Your task to perform on an android device: Go to battery settings Image 0: 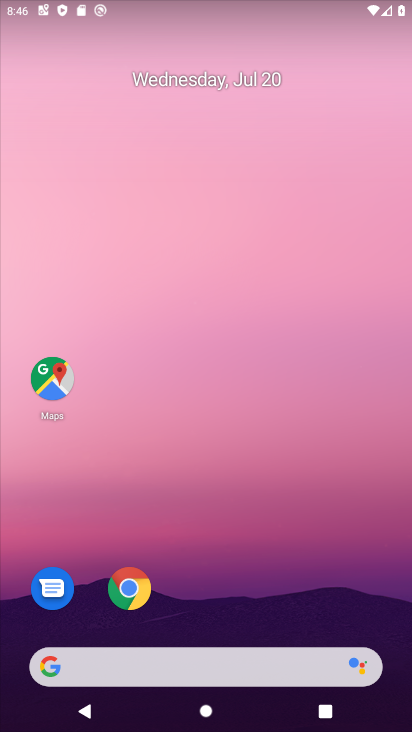
Step 0: drag from (202, 11) to (250, 486)
Your task to perform on an android device: Go to battery settings Image 1: 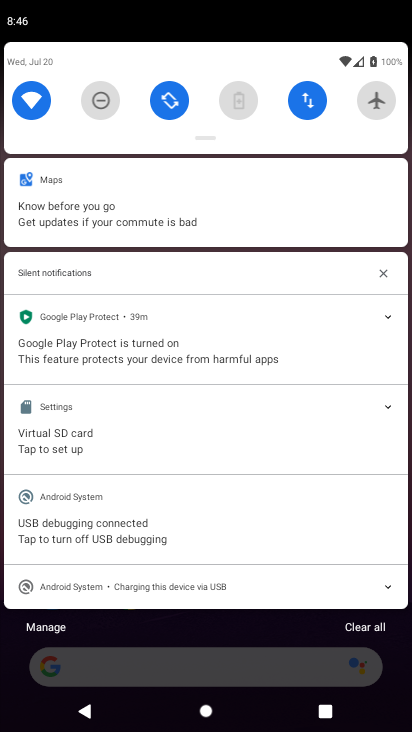
Step 1: click (238, 104)
Your task to perform on an android device: Go to battery settings Image 2: 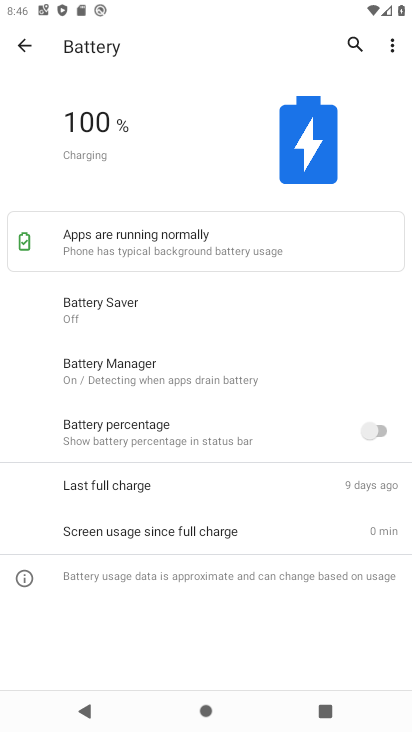
Step 2: task complete